Your task to perform on an android device: turn off data saver in the chrome app Image 0: 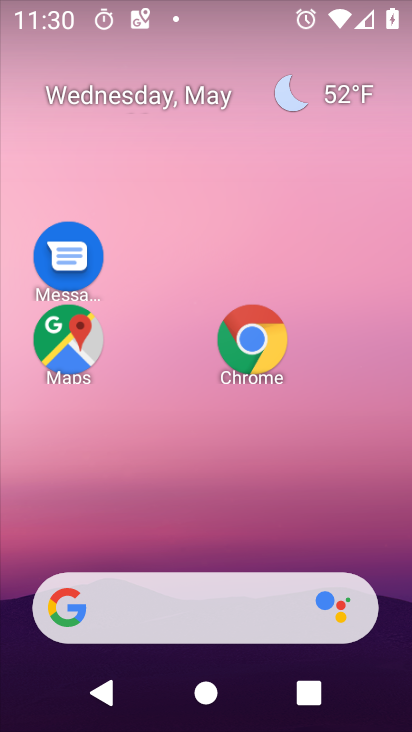
Step 0: click (251, 343)
Your task to perform on an android device: turn off data saver in the chrome app Image 1: 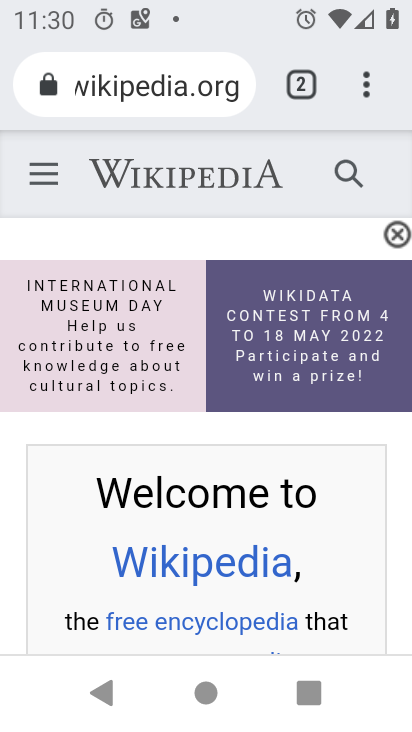
Step 1: click (352, 79)
Your task to perform on an android device: turn off data saver in the chrome app Image 2: 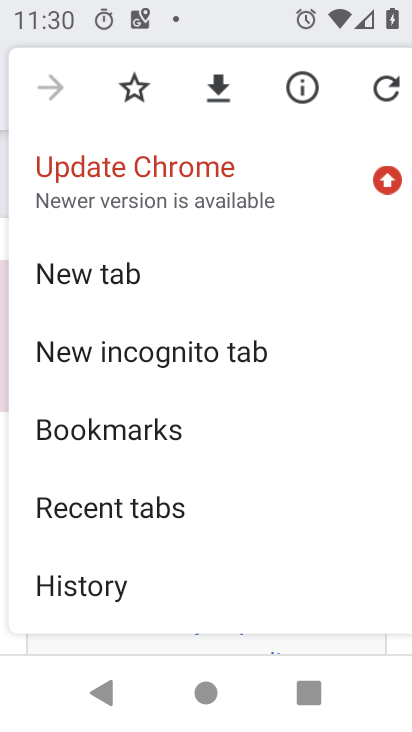
Step 2: drag from (280, 523) to (278, 97)
Your task to perform on an android device: turn off data saver in the chrome app Image 3: 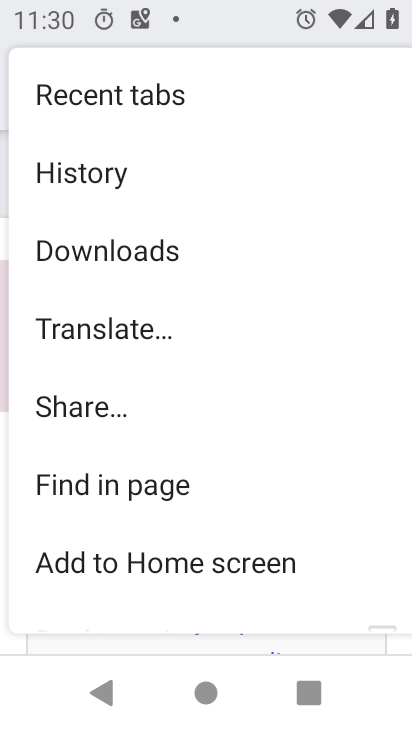
Step 3: drag from (229, 552) to (208, 193)
Your task to perform on an android device: turn off data saver in the chrome app Image 4: 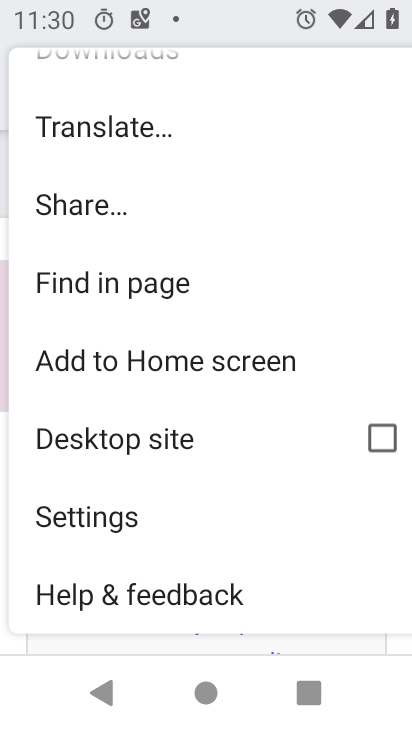
Step 4: click (140, 519)
Your task to perform on an android device: turn off data saver in the chrome app Image 5: 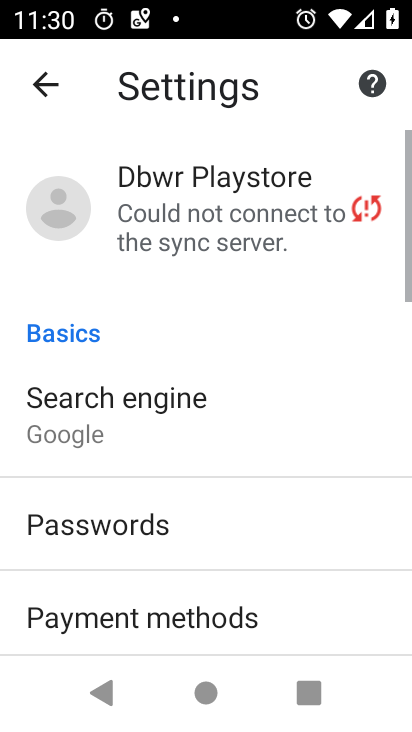
Step 5: drag from (256, 568) to (269, 63)
Your task to perform on an android device: turn off data saver in the chrome app Image 6: 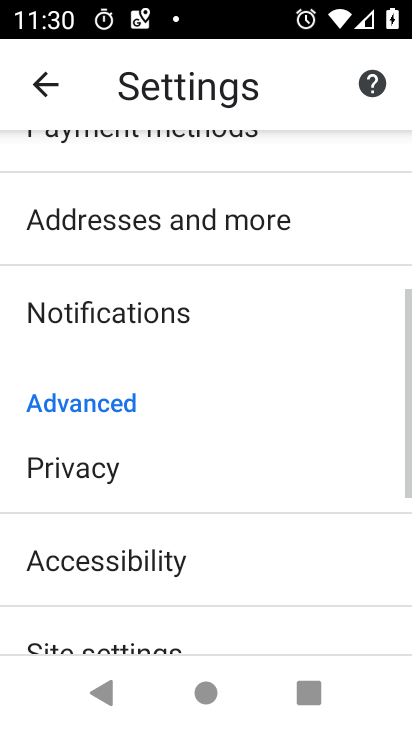
Step 6: drag from (235, 538) to (243, 212)
Your task to perform on an android device: turn off data saver in the chrome app Image 7: 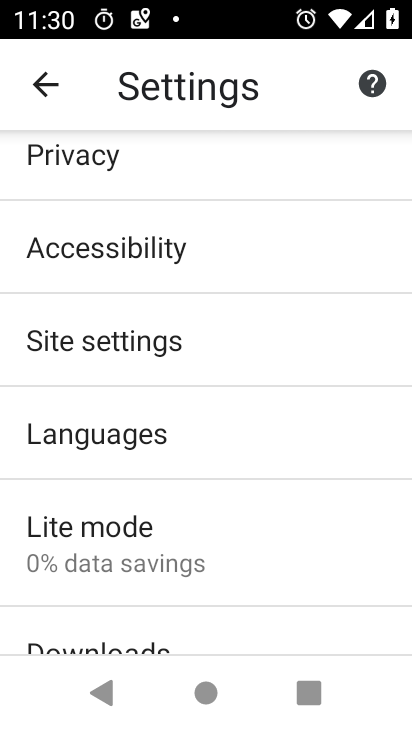
Step 7: click (107, 548)
Your task to perform on an android device: turn off data saver in the chrome app Image 8: 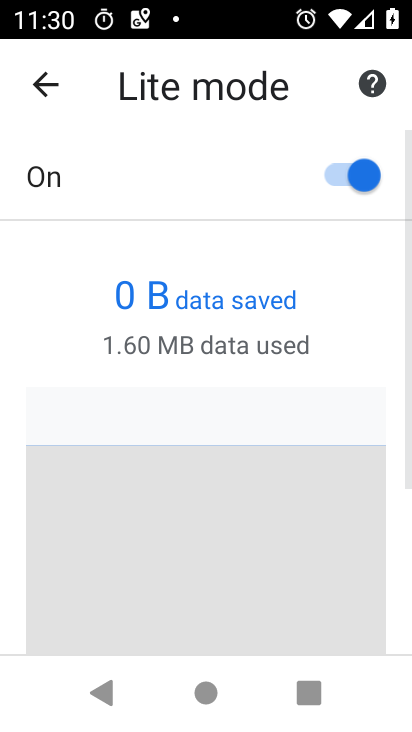
Step 8: click (400, 193)
Your task to perform on an android device: turn off data saver in the chrome app Image 9: 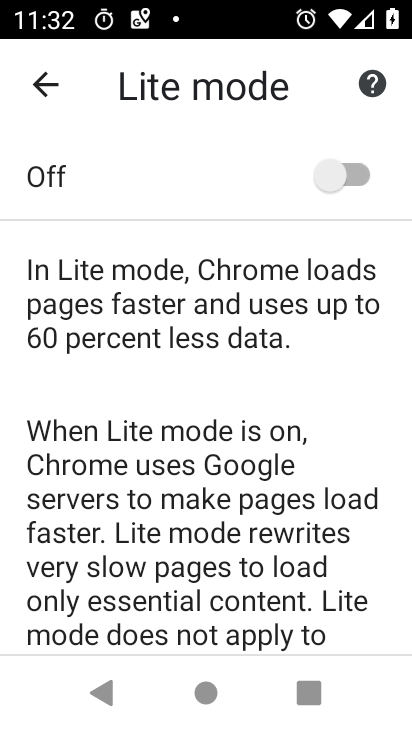
Step 9: task complete